Your task to perform on an android device: Show me the alarms in the clock app Image 0: 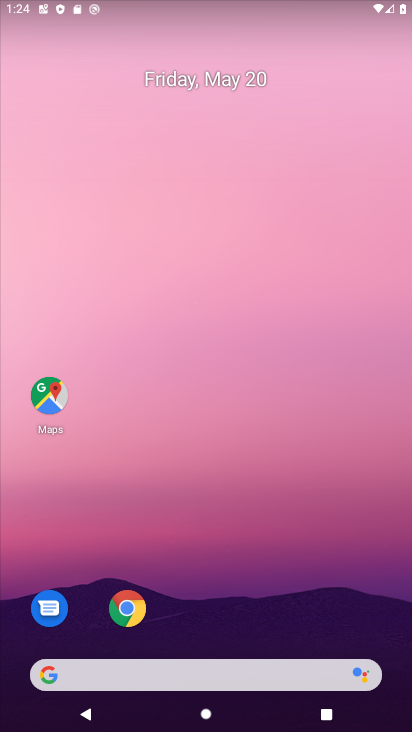
Step 0: drag from (265, 495) to (339, 20)
Your task to perform on an android device: Show me the alarms in the clock app Image 1: 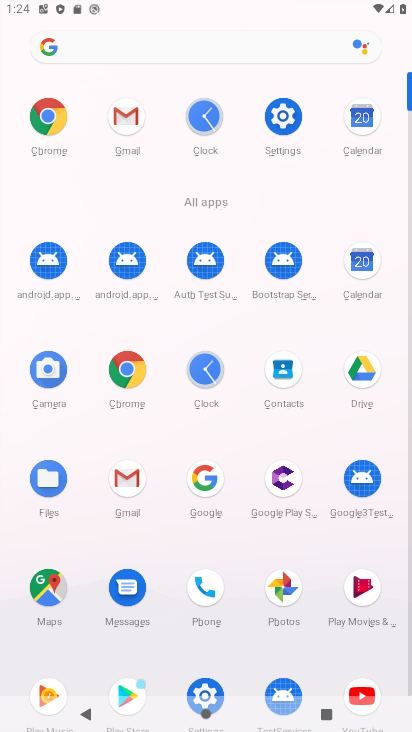
Step 1: click (212, 367)
Your task to perform on an android device: Show me the alarms in the clock app Image 2: 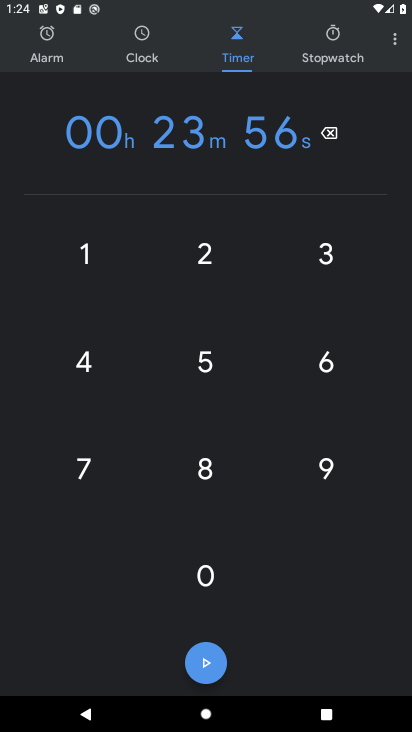
Step 2: click (36, 43)
Your task to perform on an android device: Show me the alarms in the clock app Image 3: 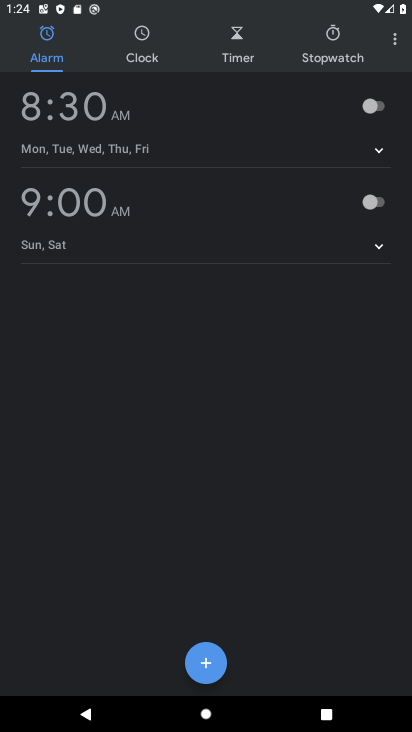
Step 3: task complete